Your task to perform on an android device: change alarm snooze length Image 0: 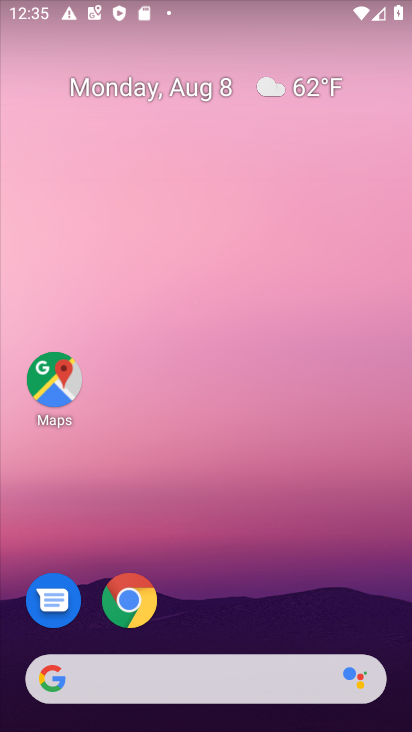
Step 0: drag from (226, 592) to (229, 140)
Your task to perform on an android device: change alarm snooze length Image 1: 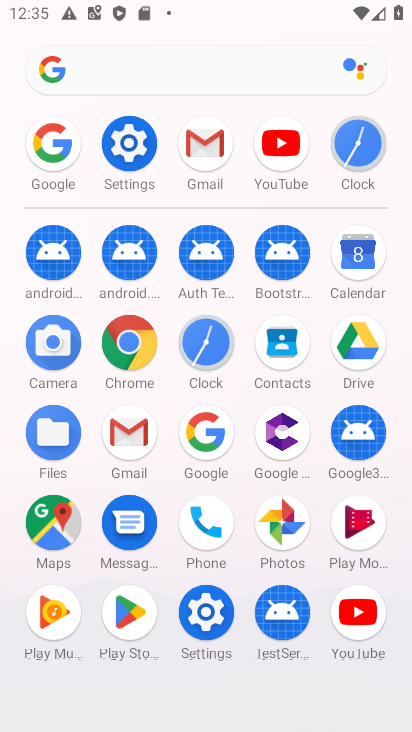
Step 1: click (351, 154)
Your task to perform on an android device: change alarm snooze length Image 2: 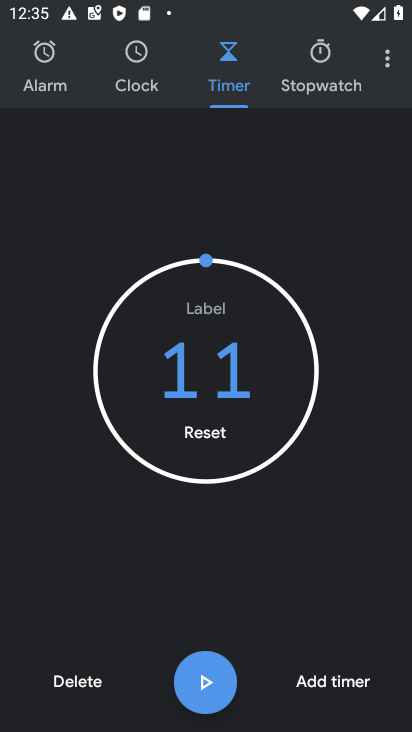
Step 2: click (386, 50)
Your task to perform on an android device: change alarm snooze length Image 3: 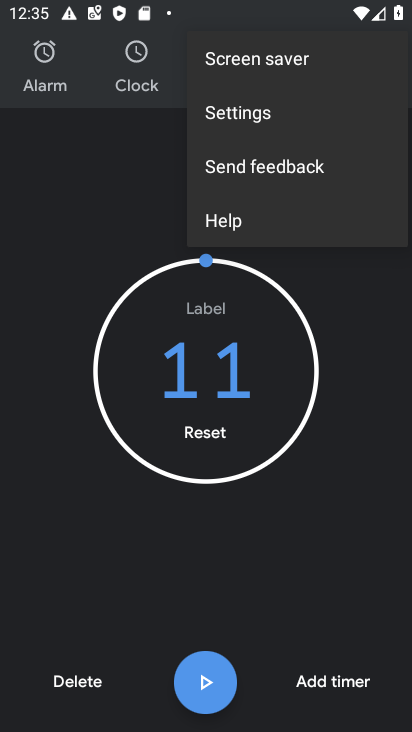
Step 3: click (301, 116)
Your task to perform on an android device: change alarm snooze length Image 4: 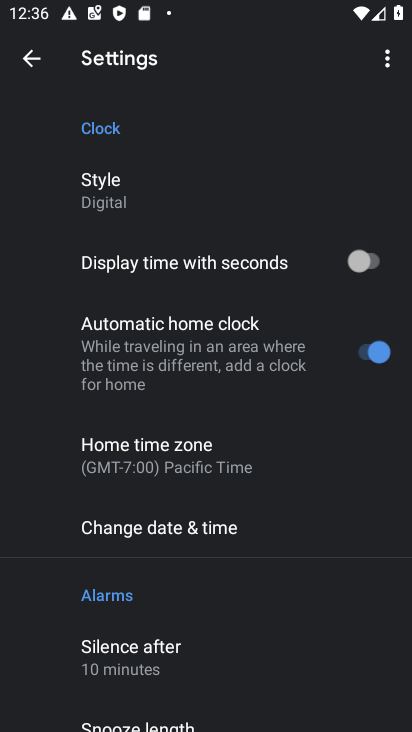
Step 4: drag from (236, 629) to (240, 280)
Your task to perform on an android device: change alarm snooze length Image 5: 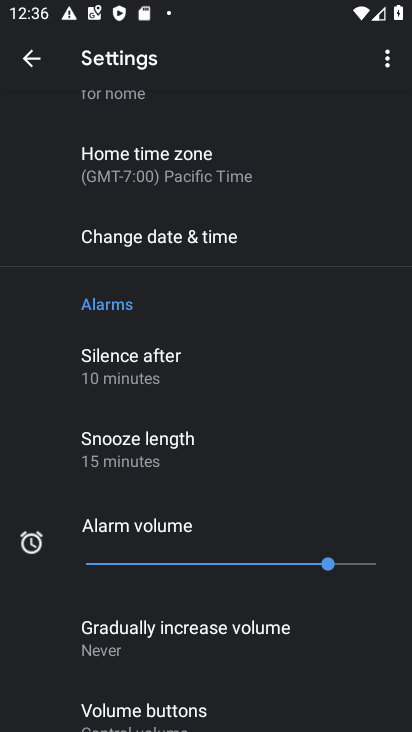
Step 5: drag from (202, 660) to (220, 341)
Your task to perform on an android device: change alarm snooze length Image 6: 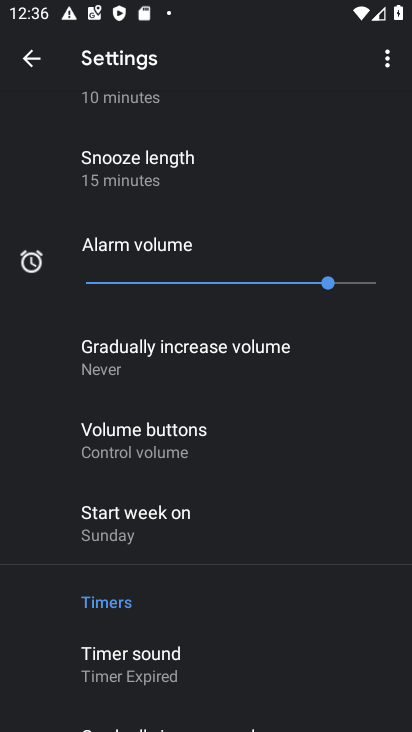
Step 6: drag from (190, 267) to (190, 599)
Your task to perform on an android device: change alarm snooze length Image 7: 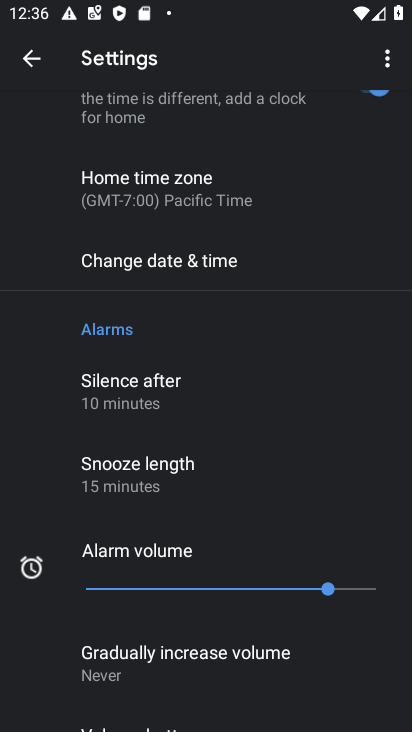
Step 7: click (151, 455)
Your task to perform on an android device: change alarm snooze length Image 8: 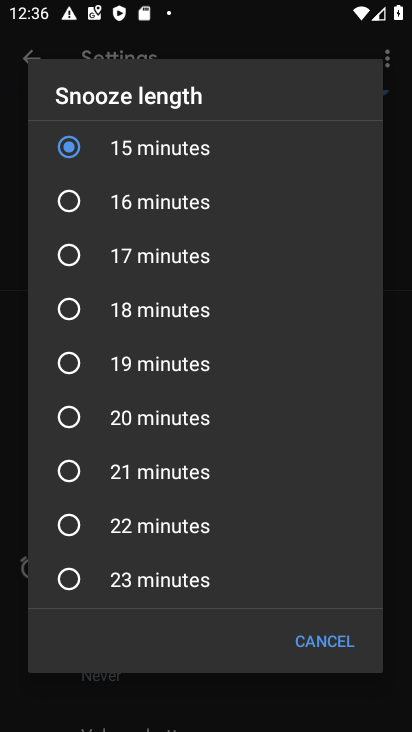
Step 8: click (115, 467)
Your task to perform on an android device: change alarm snooze length Image 9: 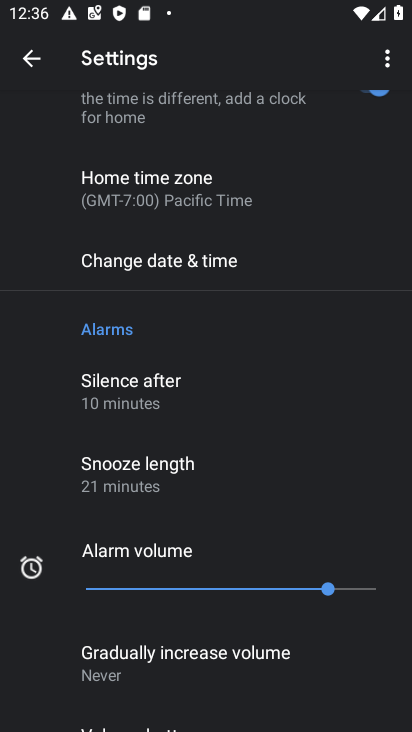
Step 9: task complete